Your task to perform on an android device: add a contact in the contacts app Image 0: 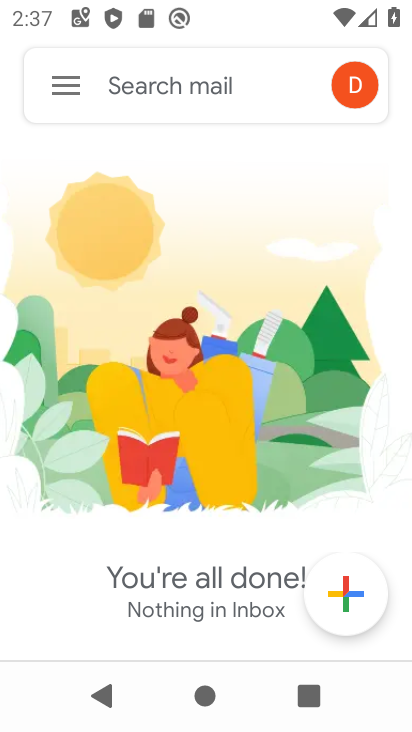
Step 0: press home button
Your task to perform on an android device: add a contact in the contacts app Image 1: 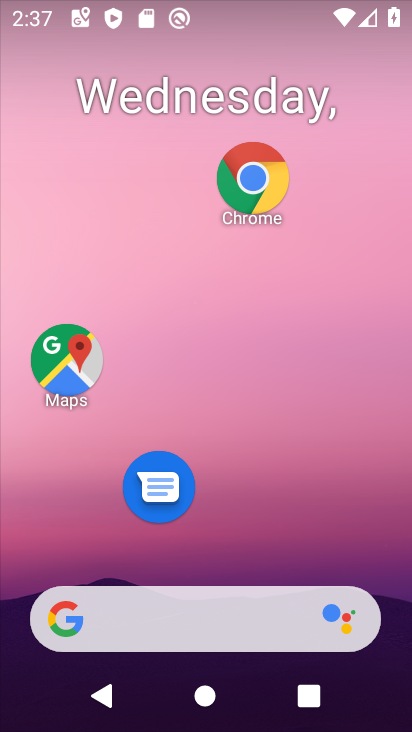
Step 1: drag from (275, 543) to (383, 70)
Your task to perform on an android device: add a contact in the contacts app Image 2: 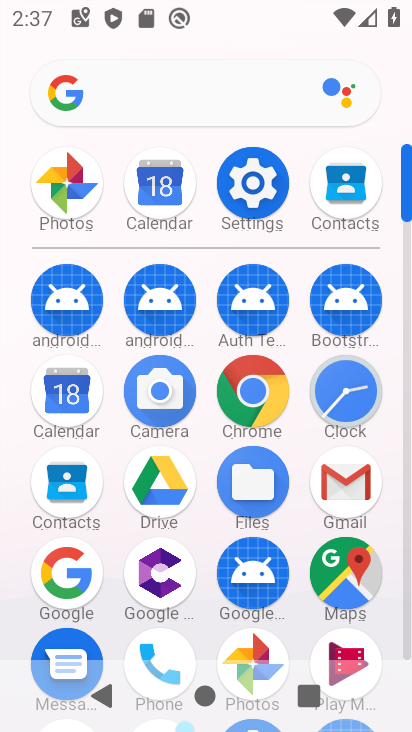
Step 2: click (75, 475)
Your task to perform on an android device: add a contact in the contacts app Image 3: 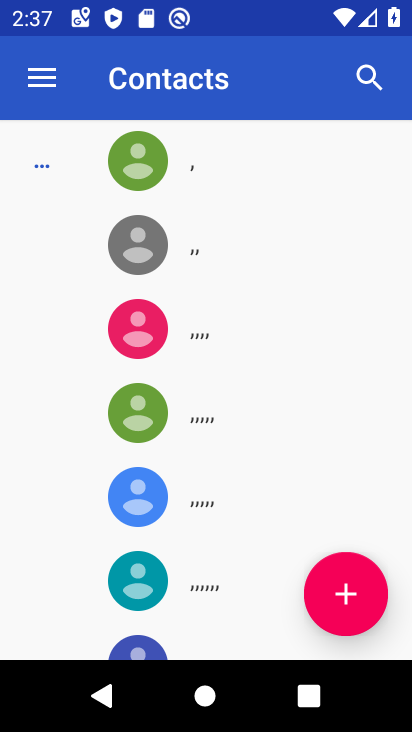
Step 3: click (344, 601)
Your task to perform on an android device: add a contact in the contacts app Image 4: 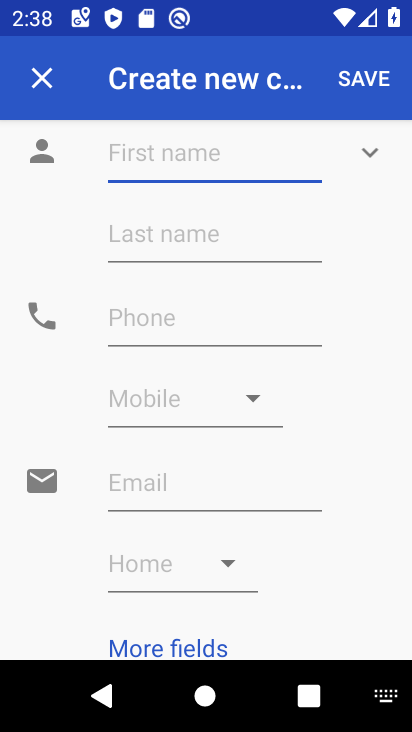
Step 4: type "awszdrfcgyhbjikm"
Your task to perform on an android device: add a contact in the contacts app Image 5: 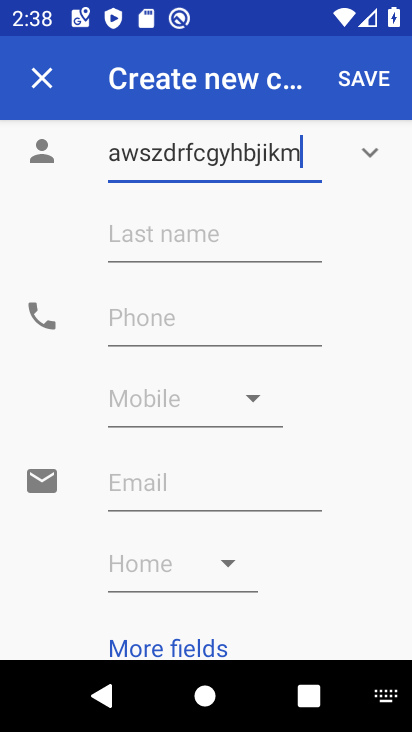
Step 5: click (130, 327)
Your task to perform on an android device: add a contact in the contacts app Image 6: 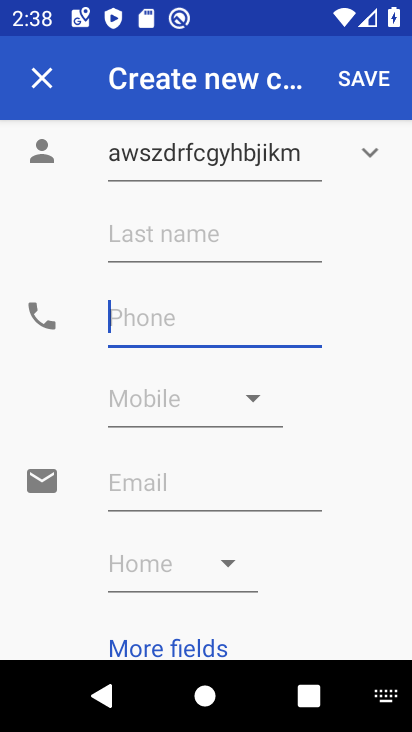
Step 6: type "67654332178"
Your task to perform on an android device: add a contact in the contacts app Image 7: 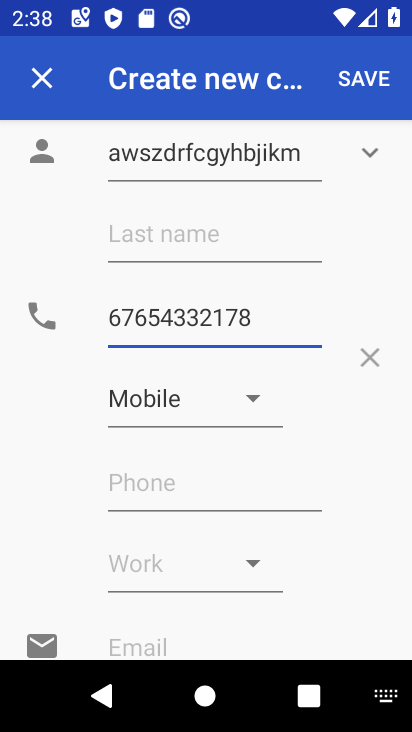
Step 7: task complete